Your task to perform on an android device: see tabs open on other devices in the chrome app Image 0: 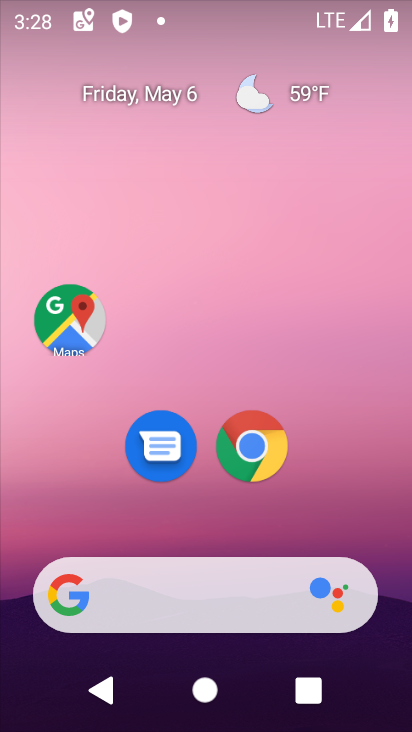
Step 0: click (239, 458)
Your task to perform on an android device: see tabs open on other devices in the chrome app Image 1: 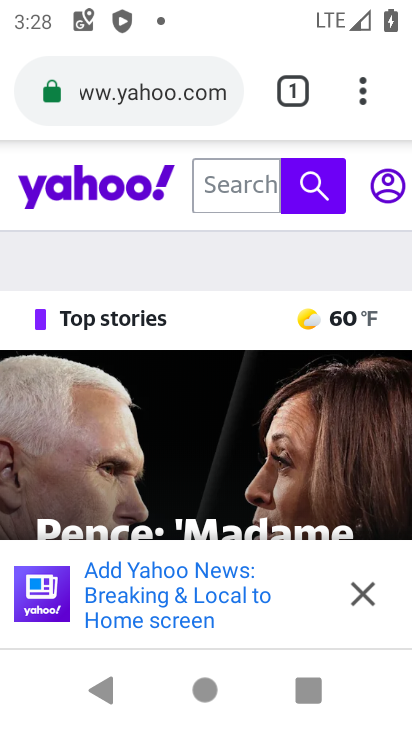
Step 1: click (293, 86)
Your task to perform on an android device: see tabs open on other devices in the chrome app Image 2: 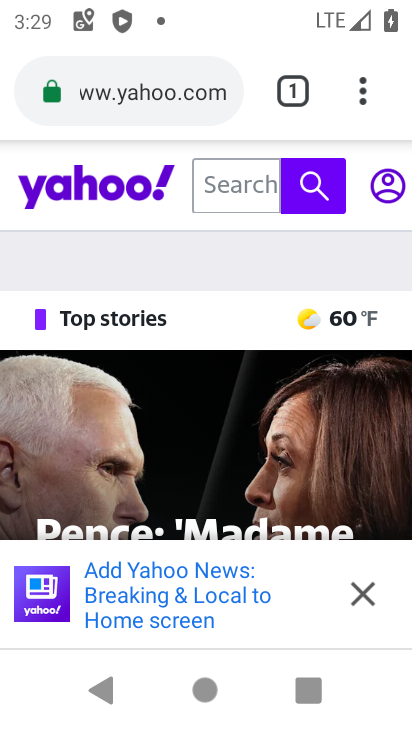
Step 2: drag from (365, 81) to (215, 441)
Your task to perform on an android device: see tabs open on other devices in the chrome app Image 3: 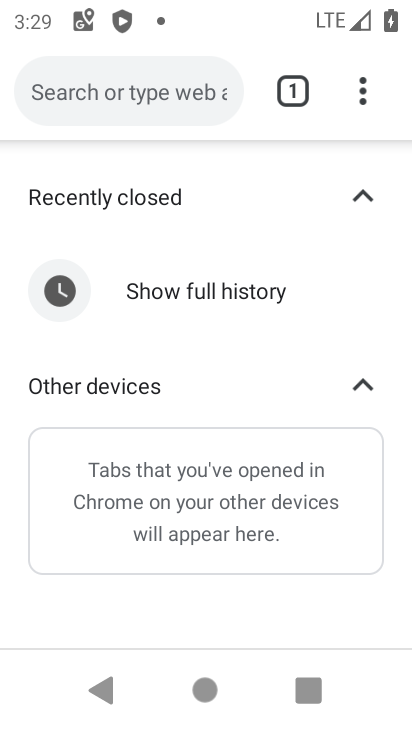
Step 3: click (252, 291)
Your task to perform on an android device: see tabs open on other devices in the chrome app Image 4: 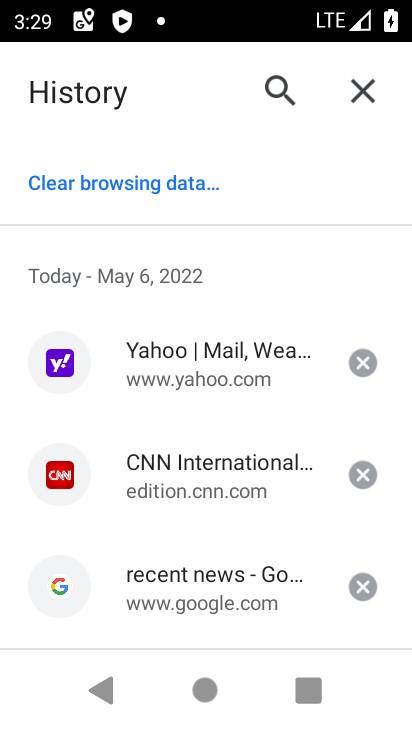
Step 4: task complete